Your task to perform on an android device: Show me popular games on the Play Store Image 0: 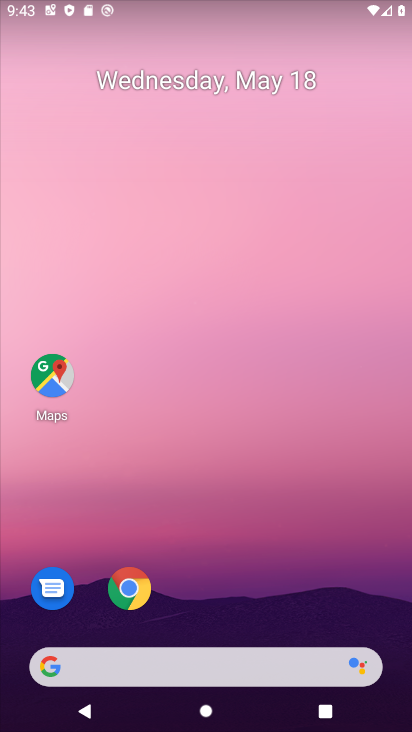
Step 0: drag from (295, 681) to (303, 185)
Your task to perform on an android device: Show me popular games on the Play Store Image 1: 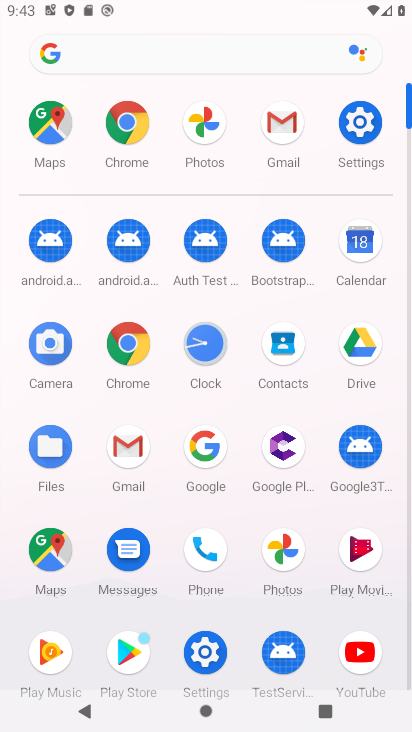
Step 1: click (137, 650)
Your task to perform on an android device: Show me popular games on the Play Store Image 2: 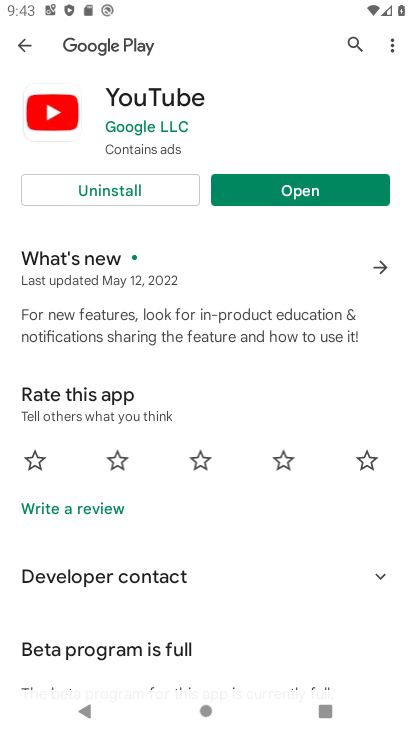
Step 2: click (356, 36)
Your task to perform on an android device: Show me popular games on the Play Store Image 3: 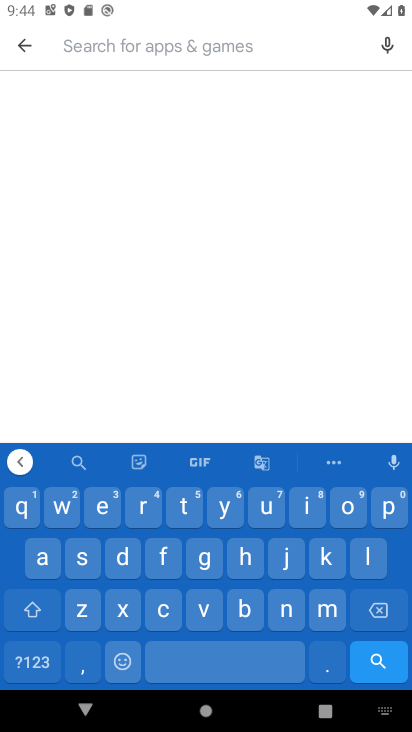
Step 3: click (391, 516)
Your task to perform on an android device: Show me popular games on the Play Store Image 4: 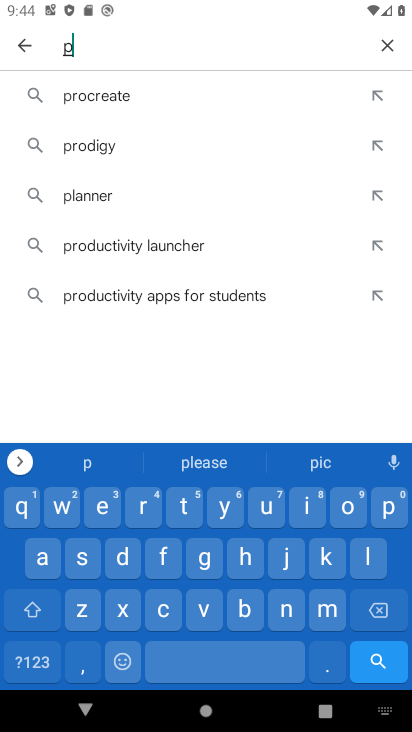
Step 4: click (347, 505)
Your task to perform on an android device: Show me popular games on the Play Store Image 5: 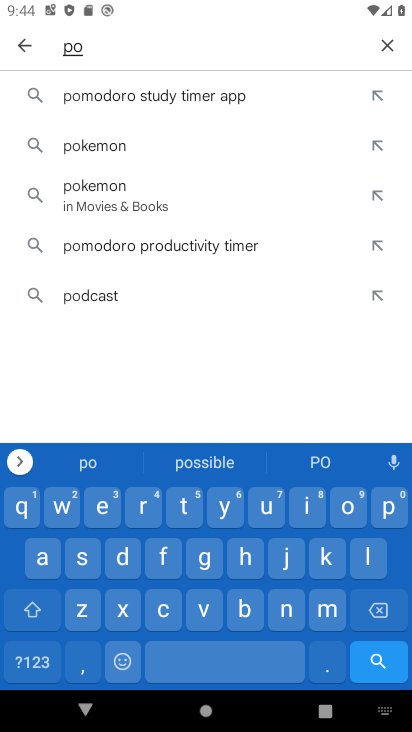
Step 5: click (388, 514)
Your task to perform on an android device: Show me popular games on the Play Store Image 6: 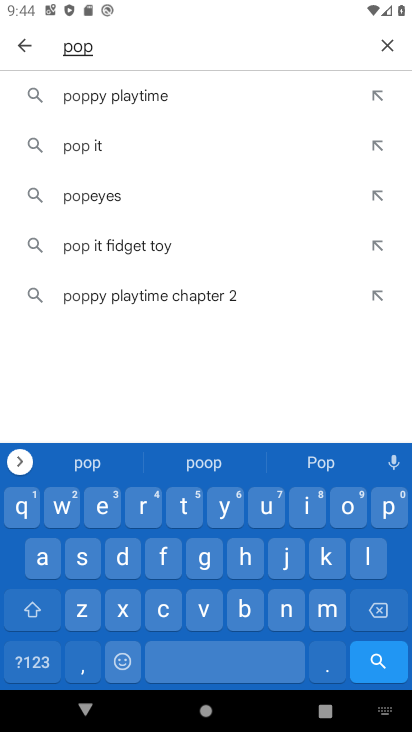
Step 6: click (266, 516)
Your task to perform on an android device: Show me popular games on the Play Store Image 7: 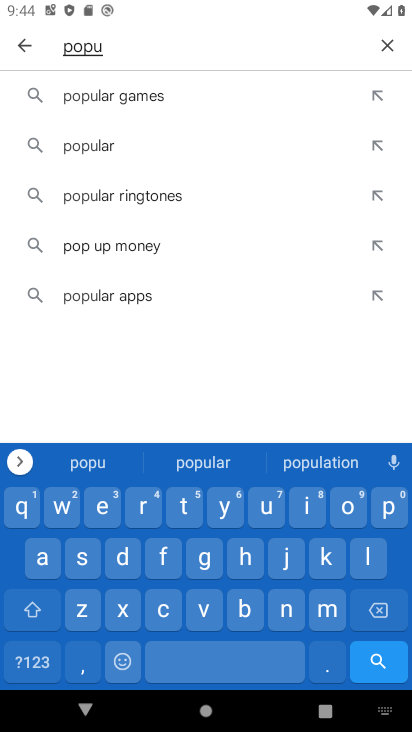
Step 7: click (107, 100)
Your task to perform on an android device: Show me popular games on the Play Store Image 8: 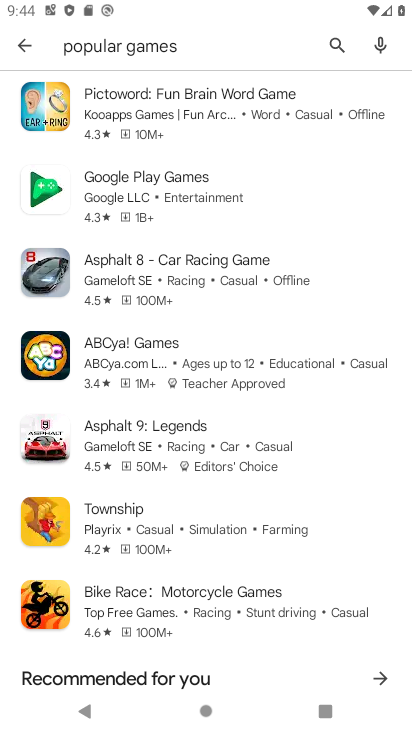
Step 8: task complete